Your task to perform on an android device: turn smart compose on in the gmail app Image 0: 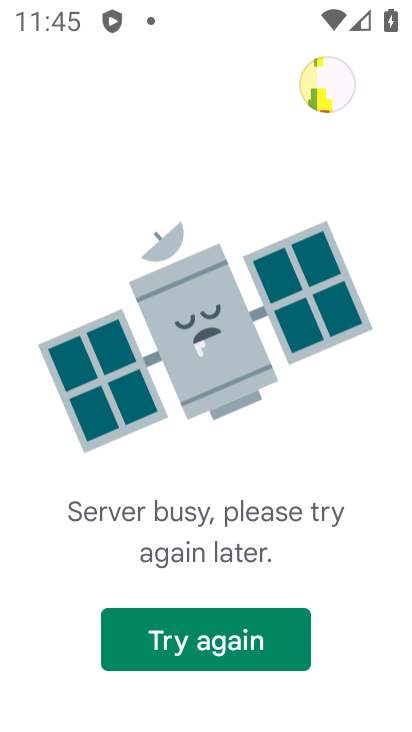
Step 0: press back button
Your task to perform on an android device: turn smart compose on in the gmail app Image 1: 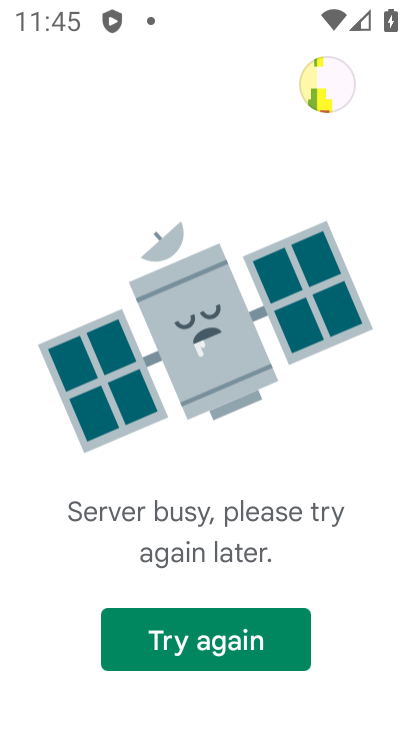
Step 1: press back button
Your task to perform on an android device: turn smart compose on in the gmail app Image 2: 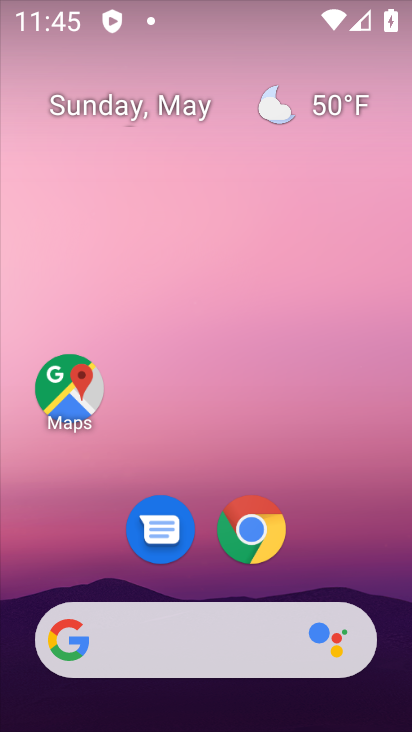
Step 2: drag from (157, 590) to (158, 405)
Your task to perform on an android device: turn smart compose on in the gmail app Image 3: 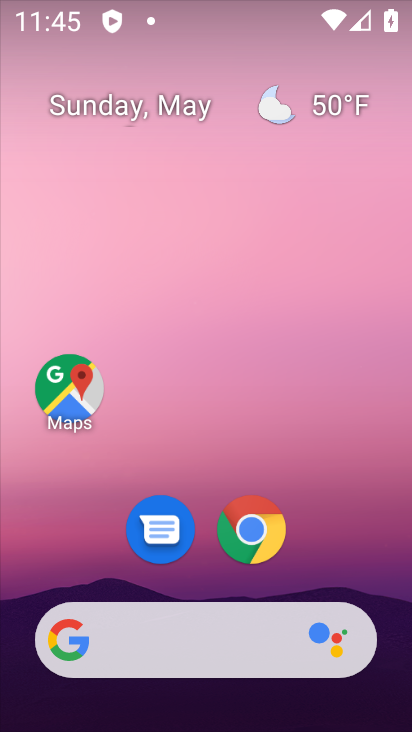
Step 3: drag from (318, 582) to (350, 384)
Your task to perform on an android device: turn smart compose on in the gmail app Image 4: 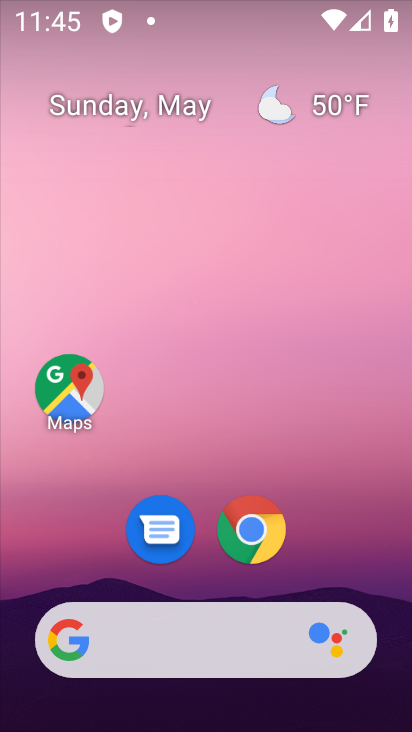
Step 4: drag from (310, 584) to (332, 373)
Your task to perform on an android device: turn smart compose on in the gmail app Image 5: 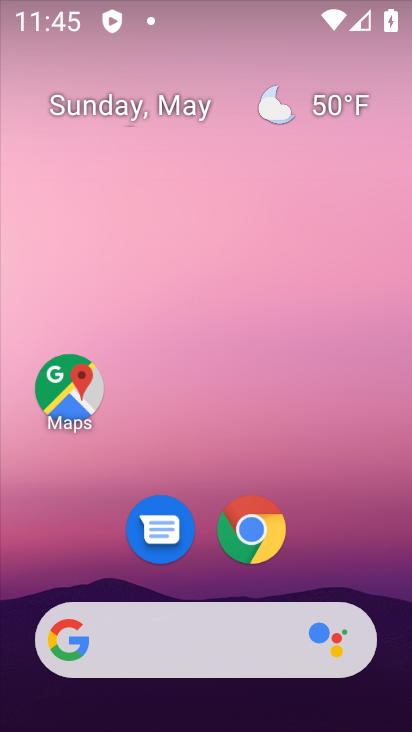
Step 5: drag from (343, 611) to (355, 79)
Your task to perform on an android device: turn smart compose on in the gmail app Image 6: 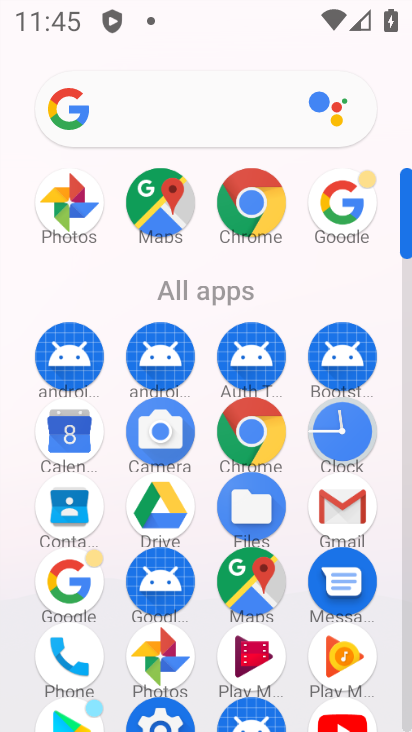
Step 6: click (354, 498)
Your task to perform on an android device: turn smart compose on in the gmail app Image 7: 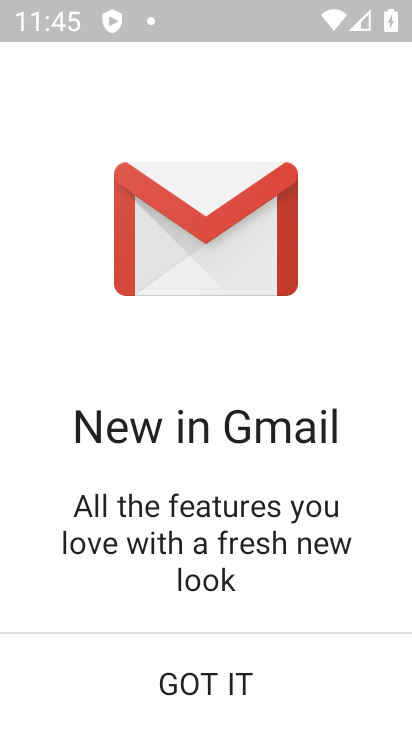
Step 7: click (184, 657)
Your task to perform on an android device: turn smart compose on in the gmail app Image 8: 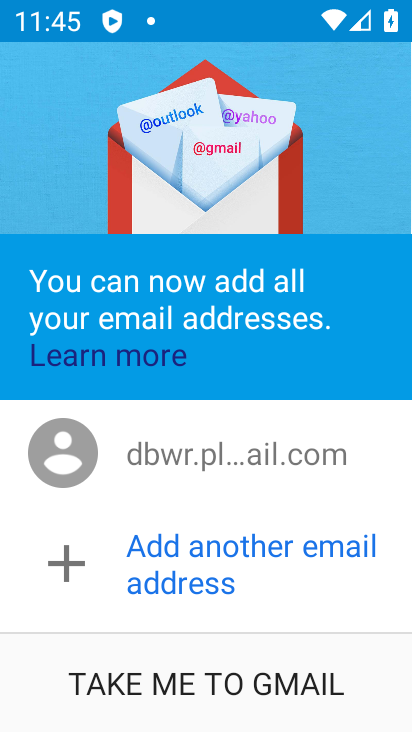
Step 8: click (251, 698)
Your task to perform on an android device: turn smart compose on in the gmail app Image 9: 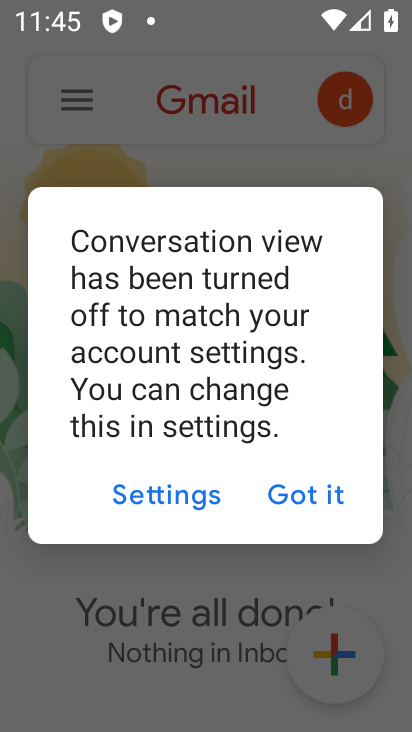
Step 9: click (348, 485)
Your task to perform on an android device: turn smart compose on in the gmail app Image 10: 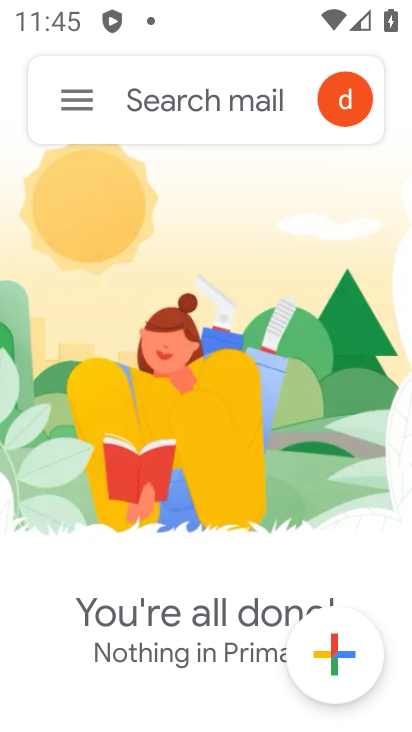
Step 10: click (81, 109)
Your task to perform on an android device: turn smart compose on in the gmail app Image 11: 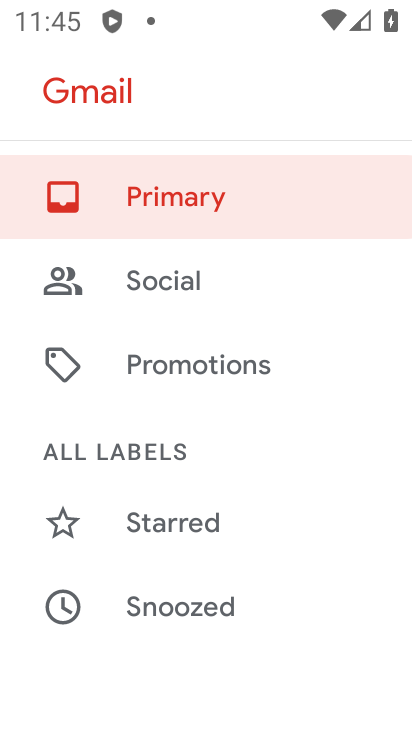
Step 11: drag from (229, 578) to (254, 382)
Your task to perform on an android device: turn smart compose on in the gmail app Image 12: 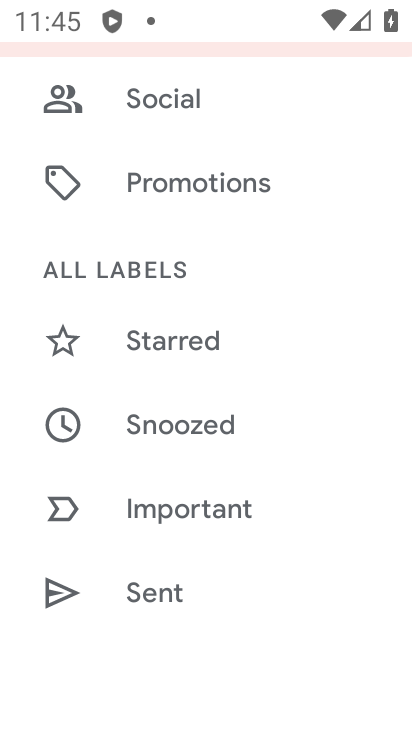
Step 12: click (254, 521)
Your task to perform on an android device: turn smart compose on in the gmail app Image 13: 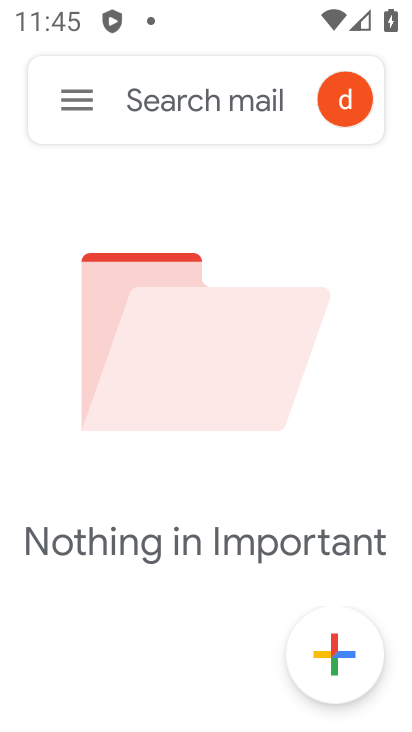
Step 13: click (77, 93)
Your task to perform on an android device: turn smart compose on in the gmail app Image 14: 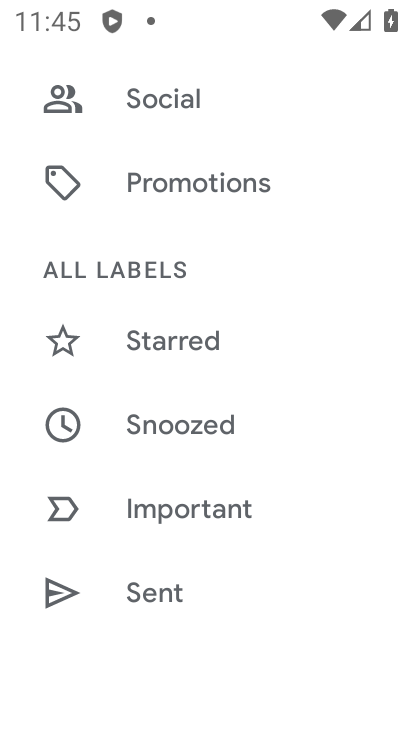
Step 14: drag from (201, 568) to (262, 330)
Your task to perform on an android device: turn smart compose on in the gmail app Image 15: 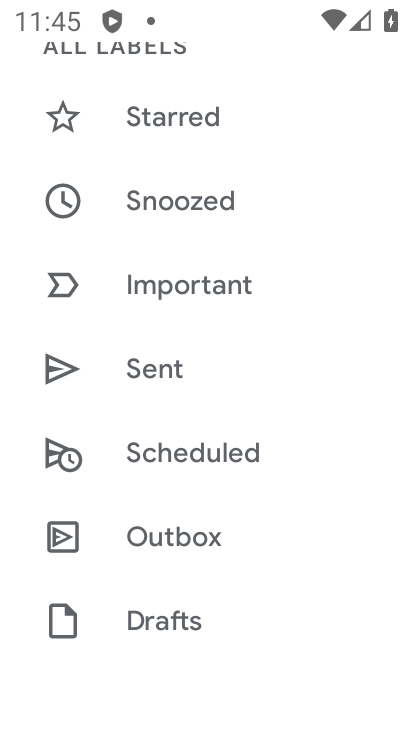
Step 15: drag from (171, 622) to (170, 320)
Your task to perform on an android device: turn smart compose on in the gmail app Image 16: 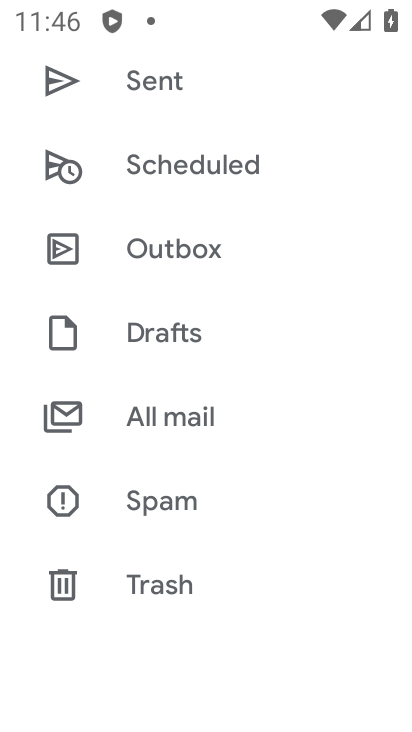
Step 16: drag from (212, 574) to (250, 295)
Your task to perform on an android device: turn smart compose on in the gmail app Image 17: 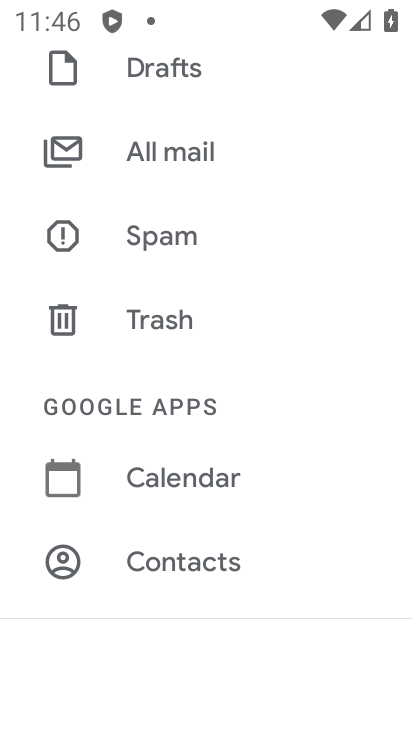
Step 17: drag from (215, 644) to (278, 407)
Your task to perform on an android device: turn smart compose on in the gmail app Image 18: 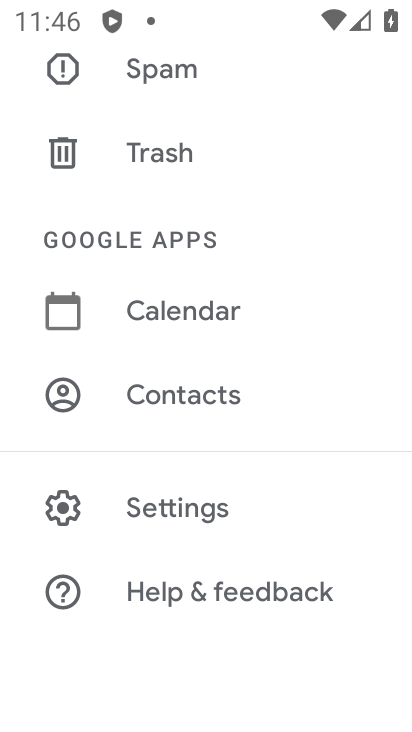
Step 18: click (239, 522)
Your task to perform on an android device: turn smart compose on in the gmail app Image 19: 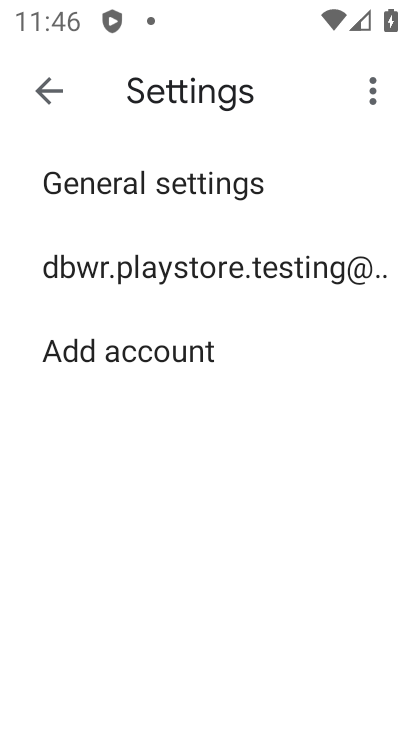
Step 19: click (207, 274)
Your task to perform on an android device: turn smart compose on in the gmail app Image 20: 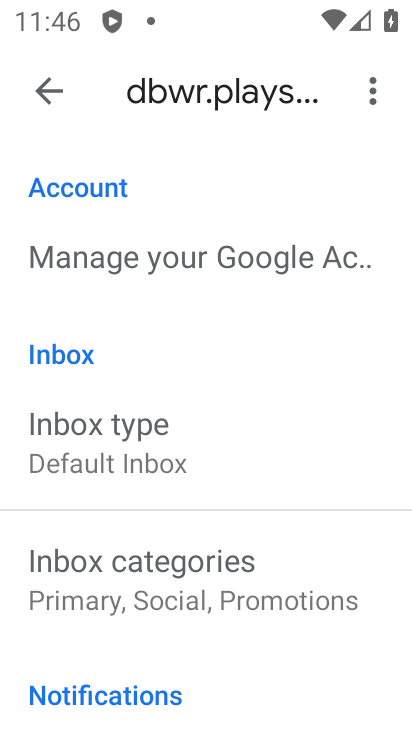
Step 20: task complete